Your task to perform on an android device: show emergency info Image 0: 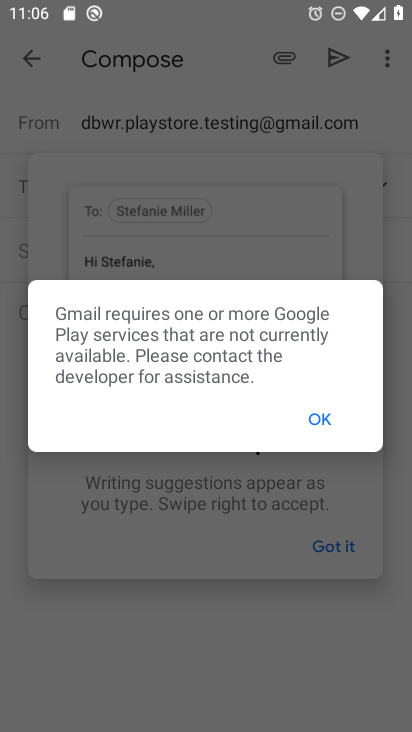
Step 0: press home button
Your task to perform on an android device: show emergency info Image 1: 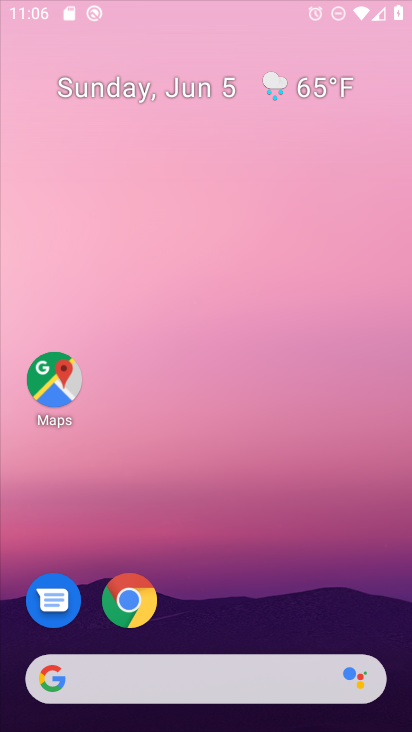
Step 1: drag from (397, 614) to (138, 50)
Your task to perform on an android device: show emergency info Image 2: 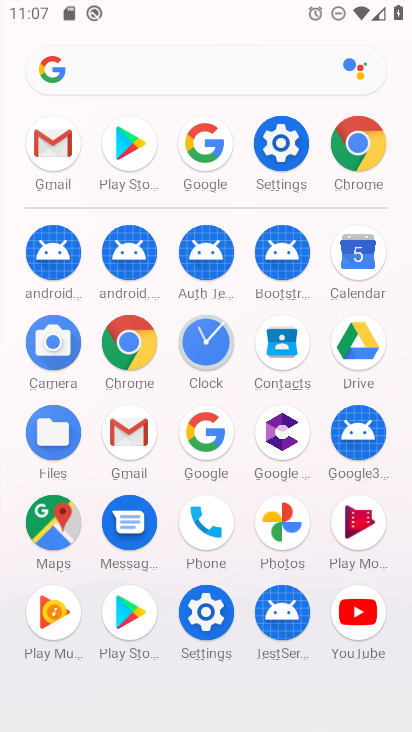
Step 2: click (208, 625)
Your task to perform on an android device: show emergency info Image 3: 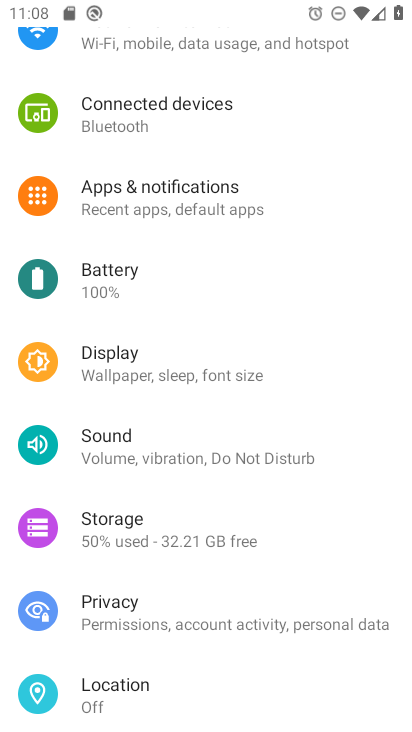
Step 3: drag from (189, 552) to (190, 103)
Your task to perform on an android device: show emergency info Image 4: 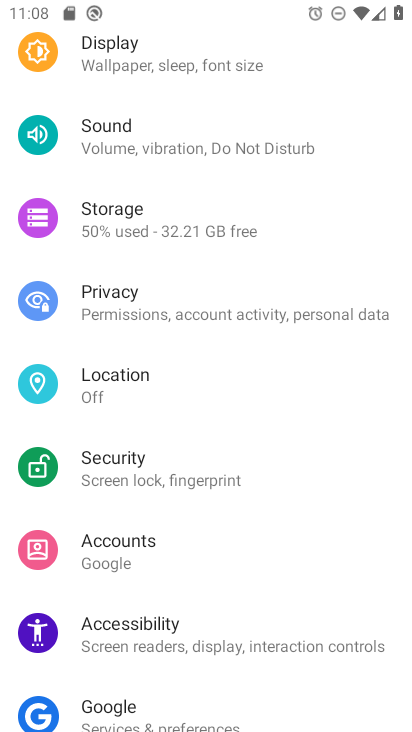
Step 4: drag from (137, 579) to (184, 142)
Your task to perform on an android device: show emergency info Image 5: 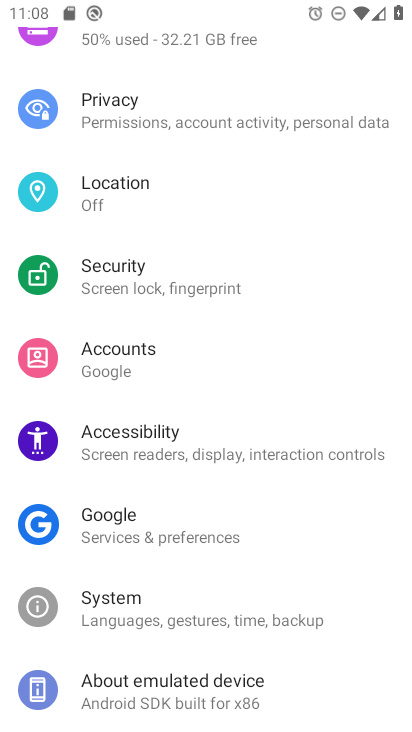
Step 5: click (178, 684)
Your task to perform on an android device: show emergency info Image 6: 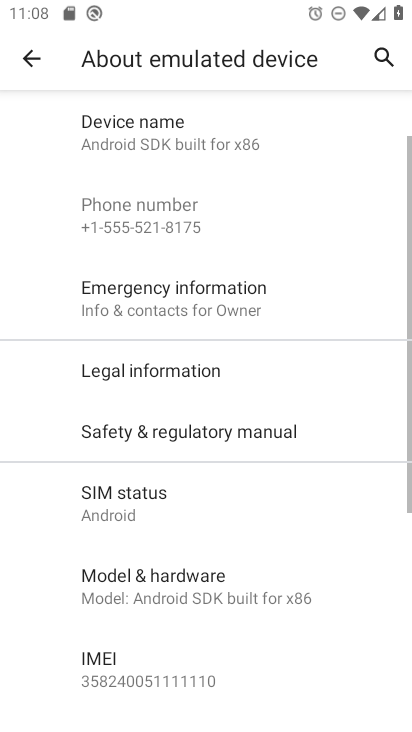
Step 6: click (193, 320)
Your task to perform on an android device: show emergency info Image 7: 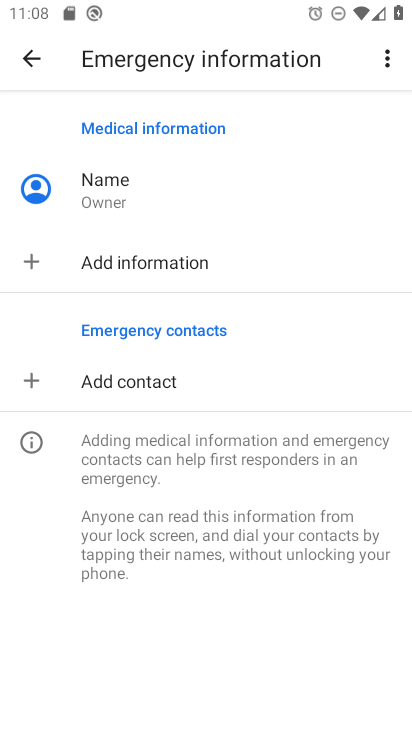
Step 7: task complete